Your task to perform on an android device: Is it going to rain this weekend? Image 0: 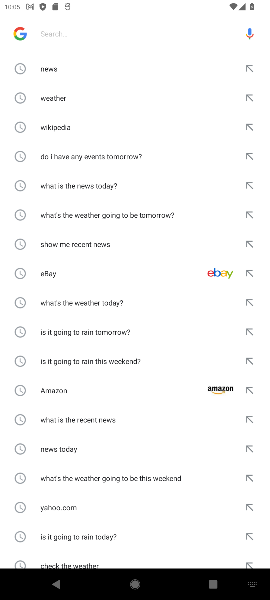
Step 0: press home button
Your task to perform on an android device: Is it going to rain this weekend? Image 1: 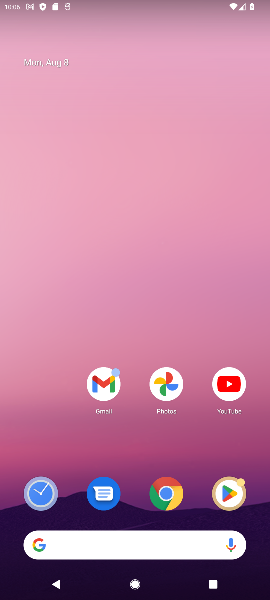
Step 1: drag from (170, 538) to (123, 160)
Your task to perform on an android device: Is it going to rain this weekend? Image 2: 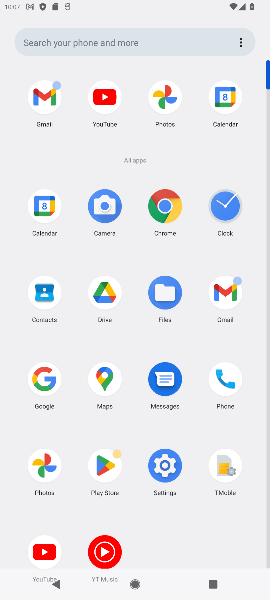
Step 2: click (46, 377)
Your task to perform on an android device: Is it going to rain this weekend? Image 3: 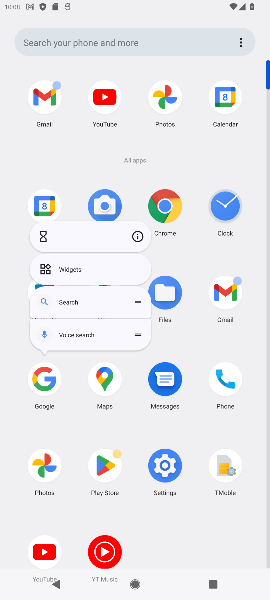
Step 3: click (42, 390)
Your task to perform on an android device: Is it going to rain this weekend? Image 4: 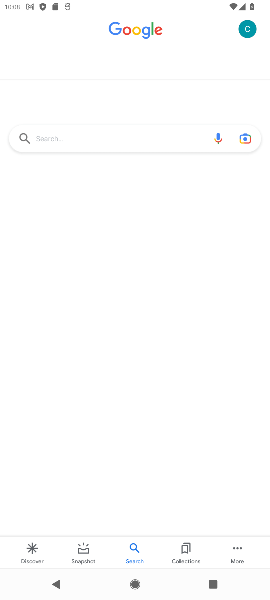
Step 4: click (113, 137)
Your task to perform on an android device: Is it going to rain this weekend? Image 5: 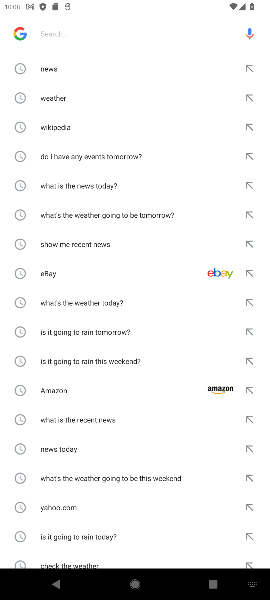
Step 5: click (71, 106)
Your task to perform on an android device: Is it going to rain this weekend? Image 6: 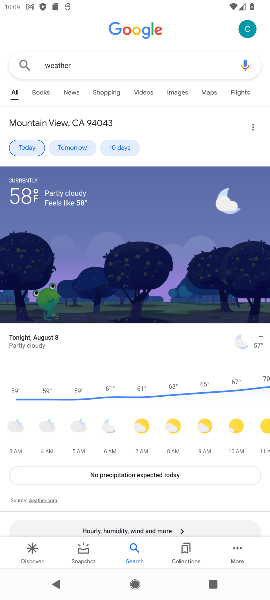
Step 6: click (128, 144)
Your task to perform on an android device: Is it going to rain this weekend? Image 7: 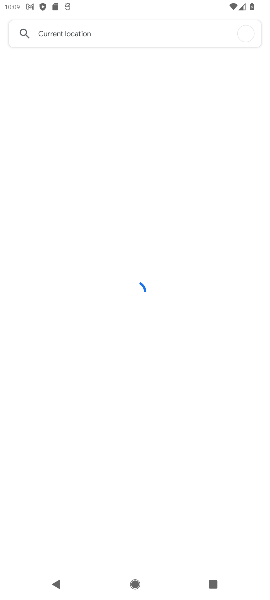
Step 7: click (122, 146)
Your task to perform on an android device: Is it going to rain this weekend? Image 8: 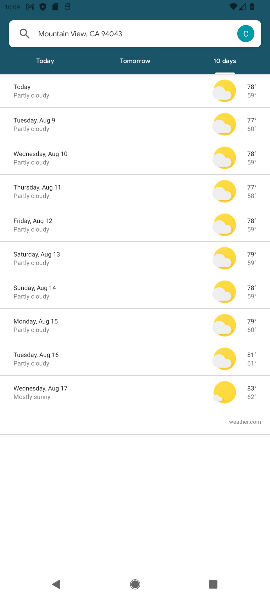
Step 8: task complete